Your task to perform on an android device: turn off data saver in the chrome app Image 0: 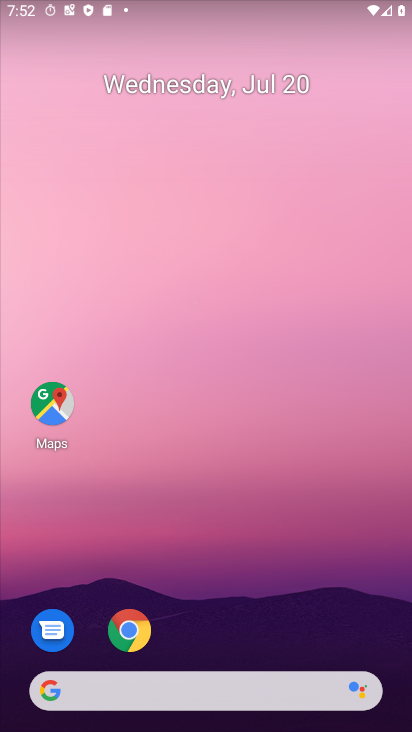
Step 0: drag from (268, 710) to (245, 94)
Your task to perform on an android device: turn off data saver in the chrome app Image 1: 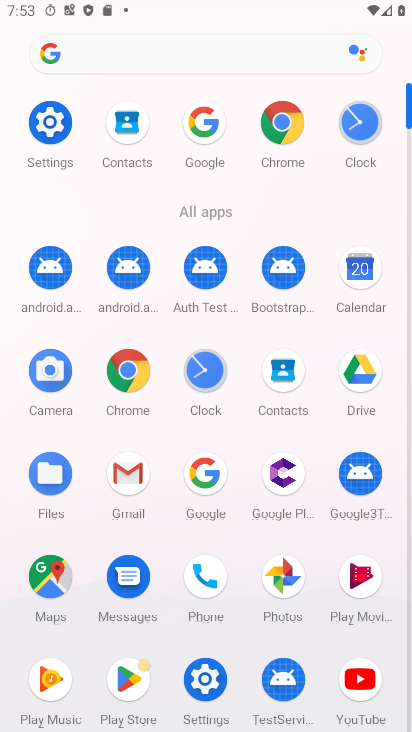
Step 1: click (125, 389)
Your task to perform on an android device: turn off data saver in the chrome app Image 2: 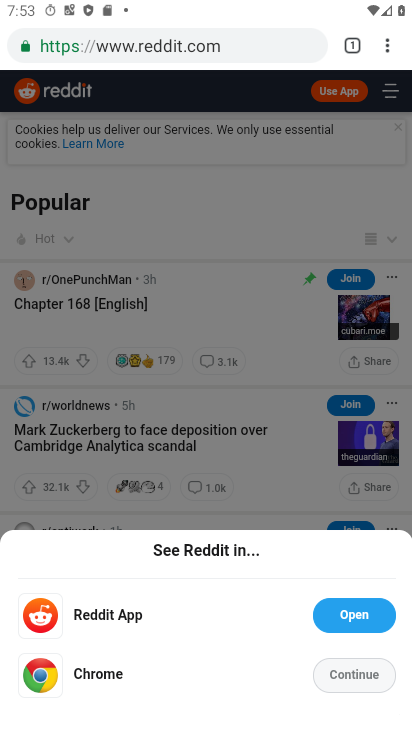
Step 2: click (385, 38)
Your task to perform on an android device: turn off data saver in the chrome app Image 3: 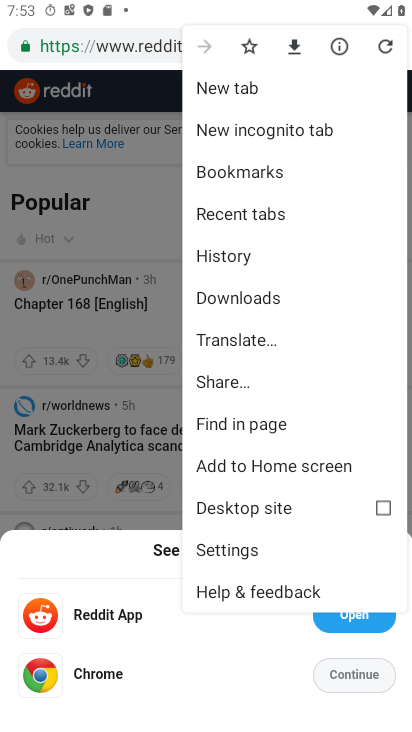
Step 3: click (246, 551)
Your task to perform on an android device: turn off data saver in the chrome app Image 4: 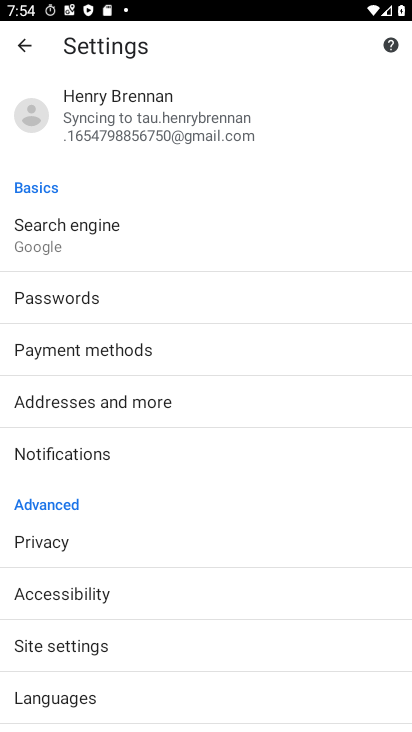
Step 4: drag from (258, 579) to (223, 130)
Your task to perform on an android device: turn off data saver in the chrome app Image 5: 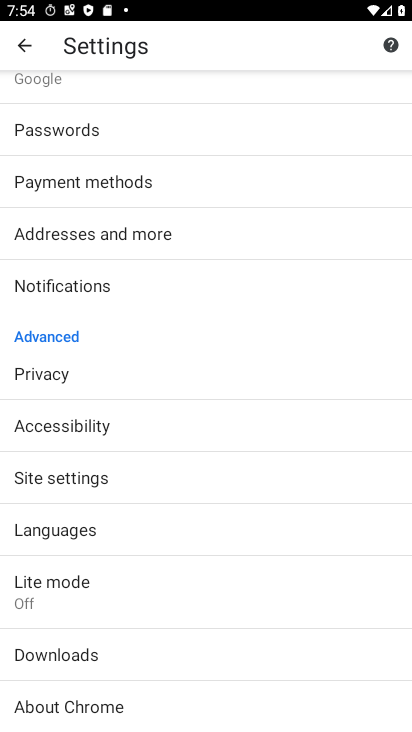
Step 5: click (143, 584)
Your task to perform on an android device: turn off data saver in the chrome app Image 6: 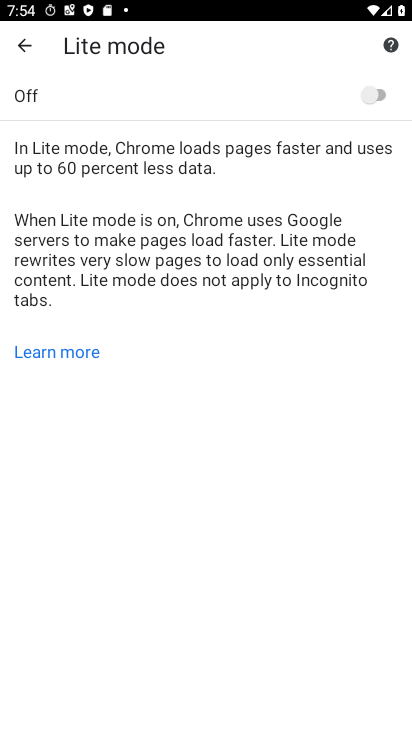
Step 6: task complete